Your task to perform on an android device: turn off improve location accuracy Image 0: 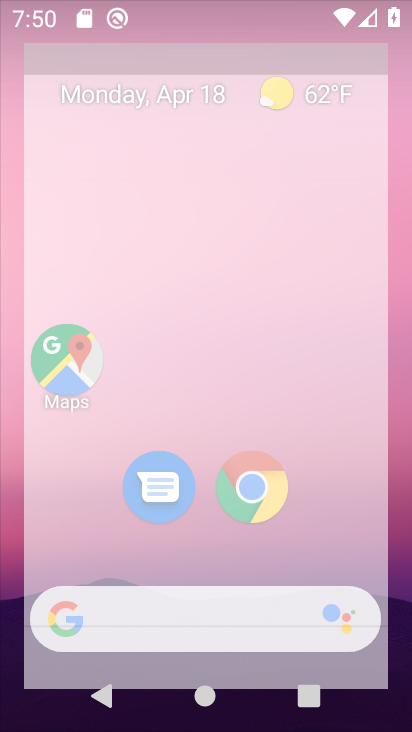
Step 0: press home button
Your task to perform on an android device: turn off improve location accuracy Image 1: 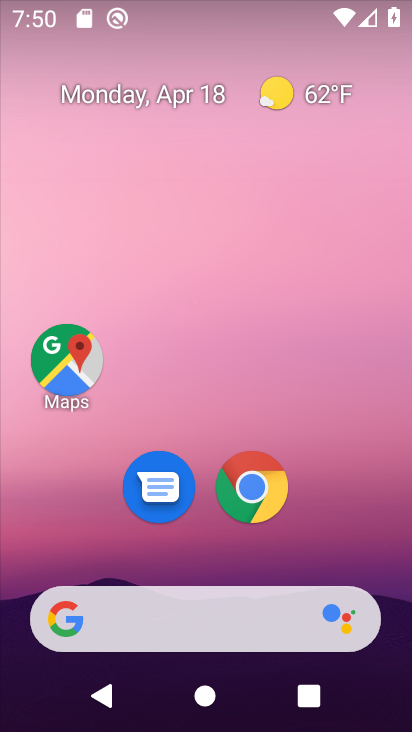
Step 1: drag from (206, 549) to (286, 1)
Your task to perform on an android device: turn off improve location accuracy Image 2: 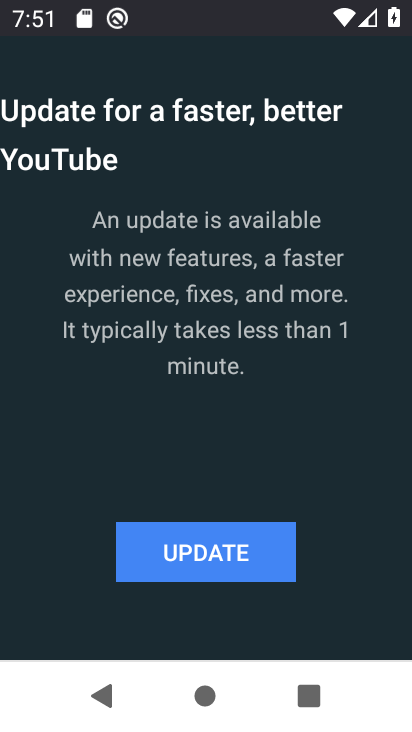
Step 2: press home button
Your task to perform on an android device: turn off improve location accuracy Image 3: 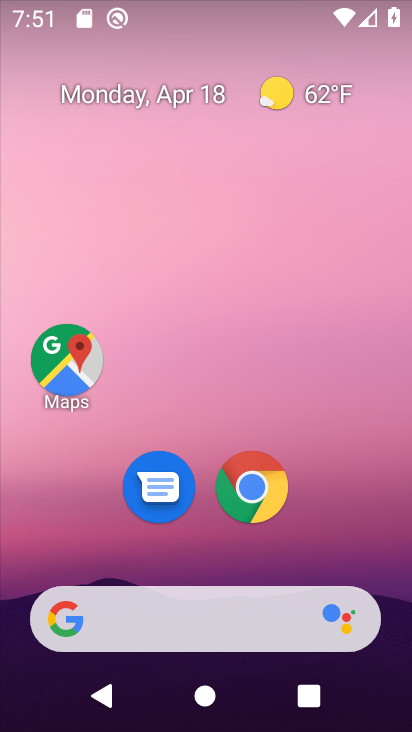
Step 3: drag from (205, 552) to (270, 18)
Your task to perform on an android device: turn off improve location accuracy Image 4: 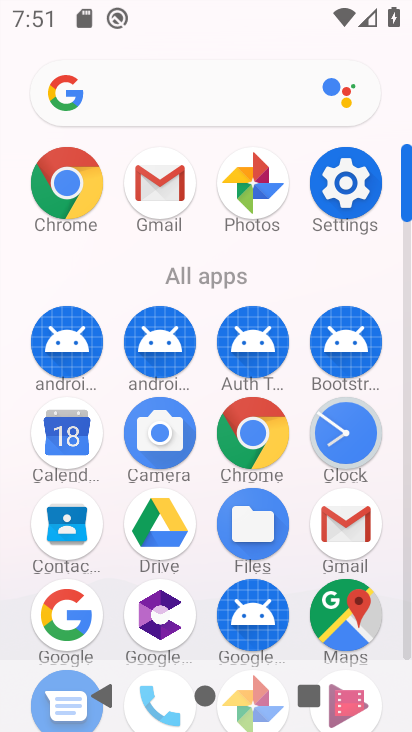
Step 4: click (342, 180)
Your task to perform on an android device: turn off improve location accuracy Image 5: 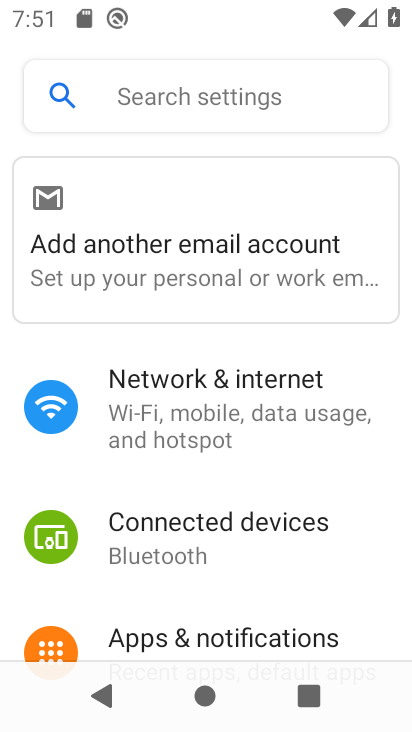
Step 5: drag from (197, 597) to (240, 131)
Your task to perform on an android device: turn off improve location accuracy Image 6: 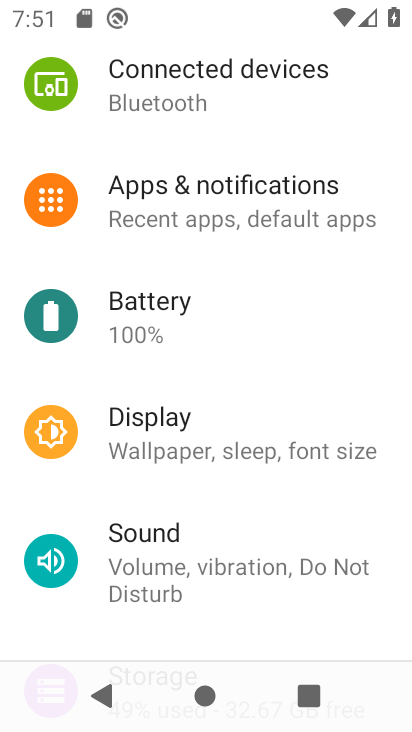
Step 6: drag from (176, 574) to (211, 116)
Your task to perform on an android device: turn off improve location accuracy Image 7: 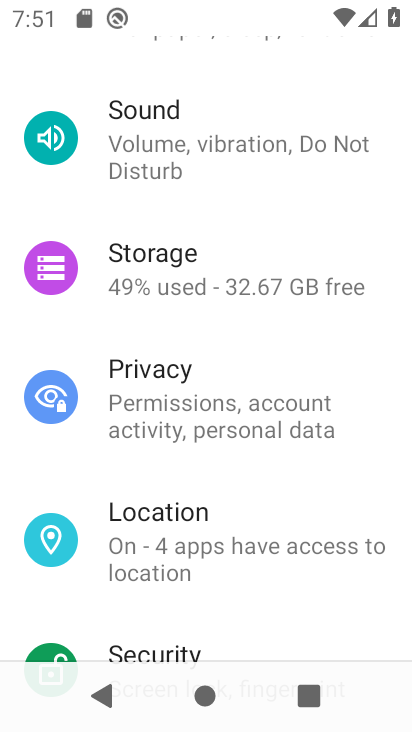
Step 7: click (195, 527)
Your task to perform on an android device: turn off improve location accuracy Image 8: 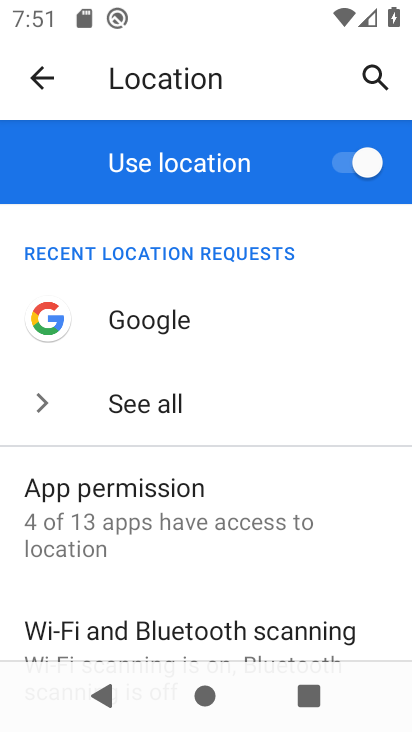
Step 8: drag from (206, 595) to (222, 266)
Your task to perform on an android device: turn off improve location accuracy Image 9: 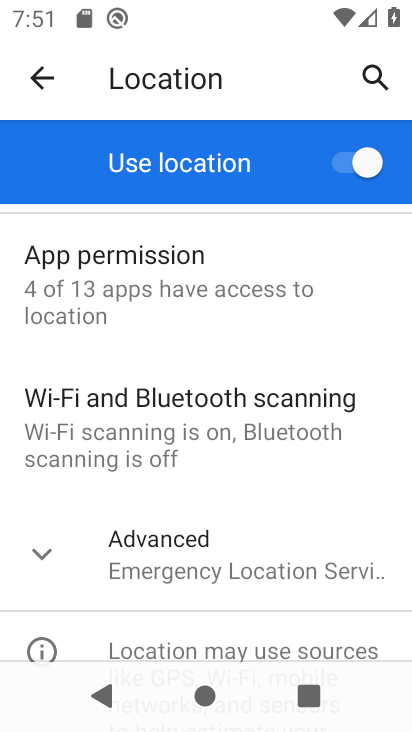
Step 9: click (31, 544)
Your task to perform on an android device: turn off improve location accuracy Image 10: 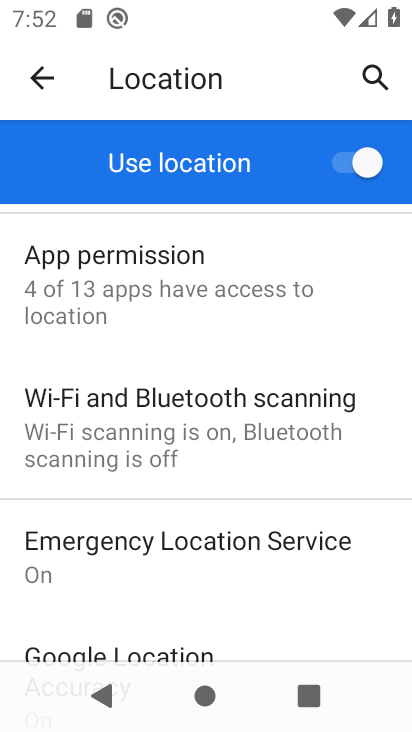
Step 10: drag from (215, 619) to (263, 206)
Your task to perform on an android device: turn off improve location accuracy Image 11: 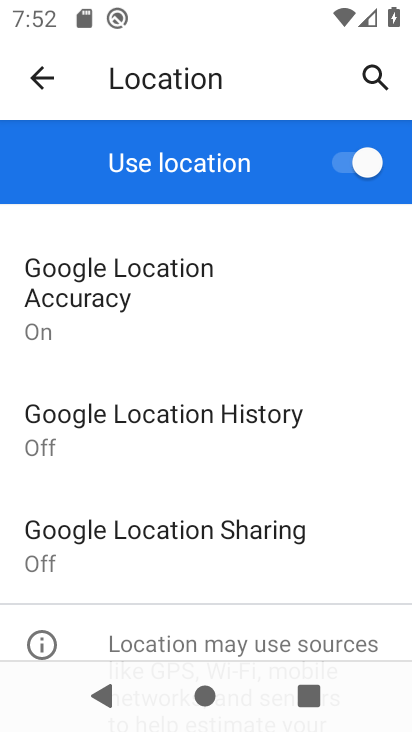
Step 11: click (95, 298)
Your task to perform on an android device: turn off improve location accuracy Image 12: 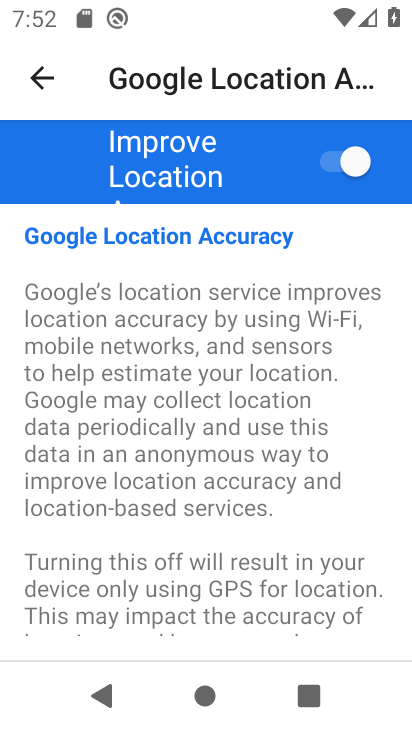
Step 12: click (333, 156)
Your task to perform on an android device: turn off improve location accuracy Image 13: 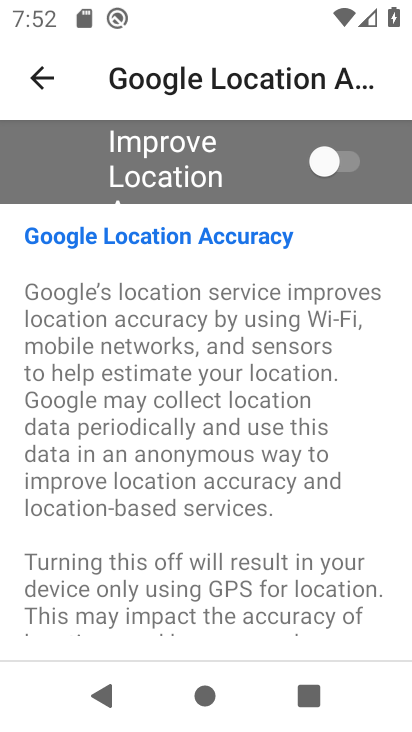
Step 13: task complete